Your task to perform on an android device: open app "Yahoo Mail" (install if not already installed) and go to login screen Image 0: 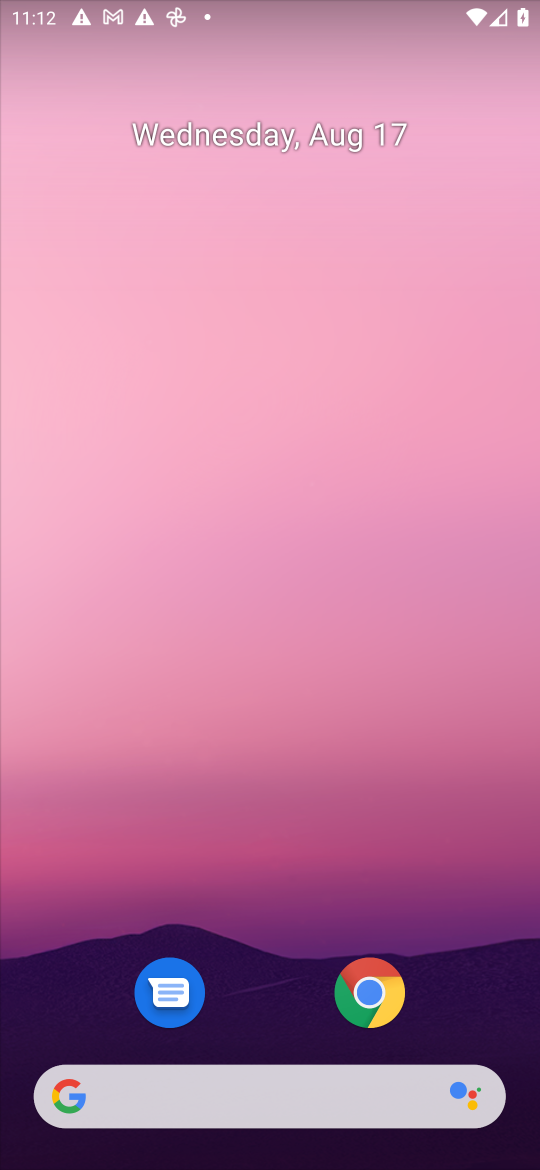
Step 0: drag from (481, 995) to (204, 15)
Your task to perform on an android device: open app "Yahoo Mail" (install if not already installed) and go to login screen Image 1: 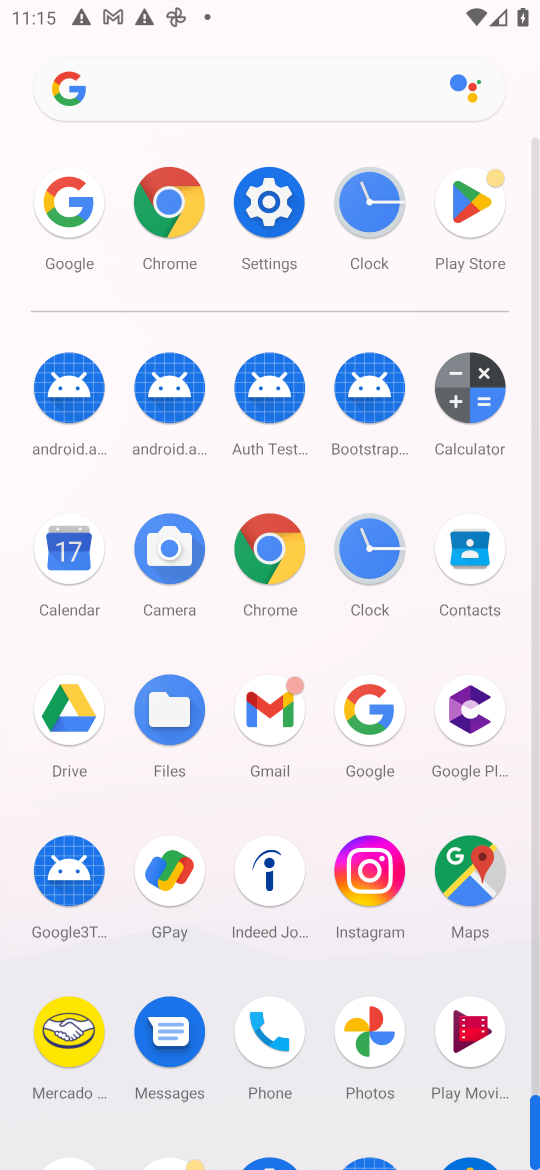
Step 1: click (469, 224)
Your task to perform on an android device: open app "Yahoo Mail" (install if not already installed) and go to login screen Image 2: 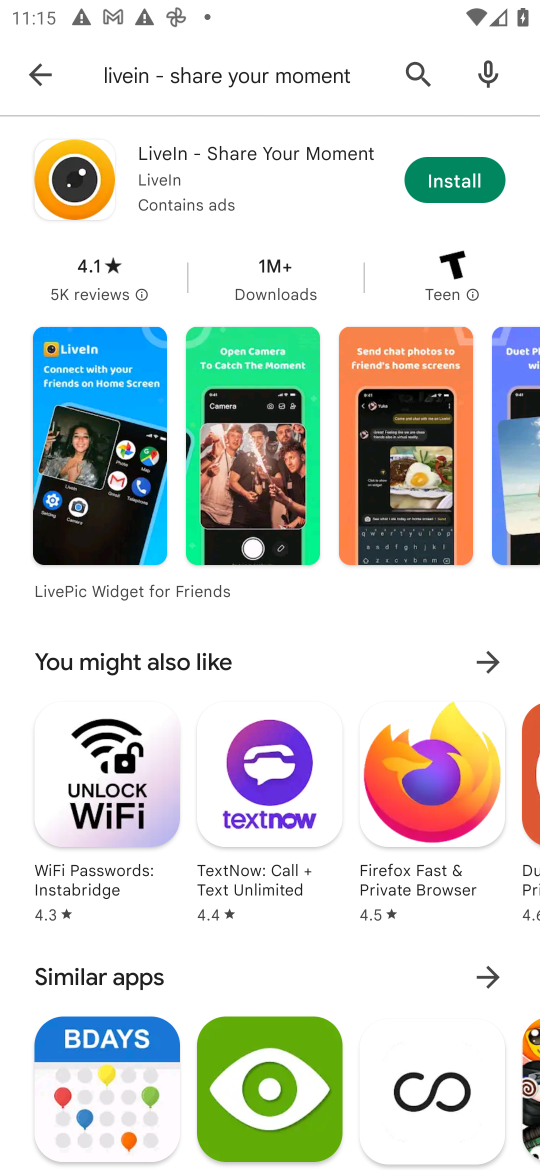
Step 2: press back button
Your task to perform on an android device: open app "Yahoo Mail" (install if not already installed) and go to login screen Image 3: 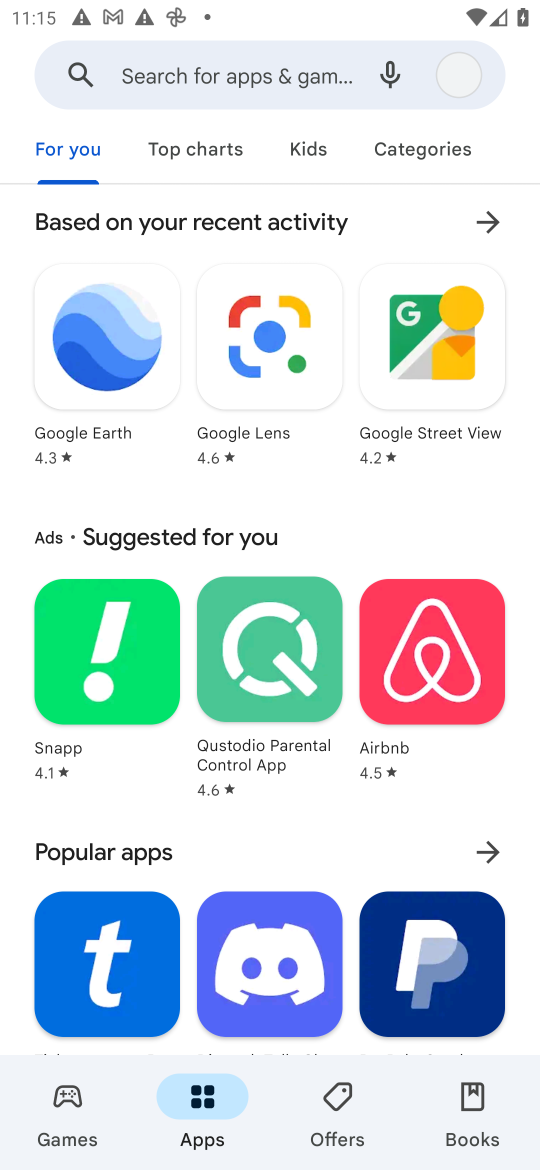
Step 3: click (164, 77)
Your task to perform on an android device: open app "Yahoo Mail" (install if not already installed) and go to login screen Image 4: 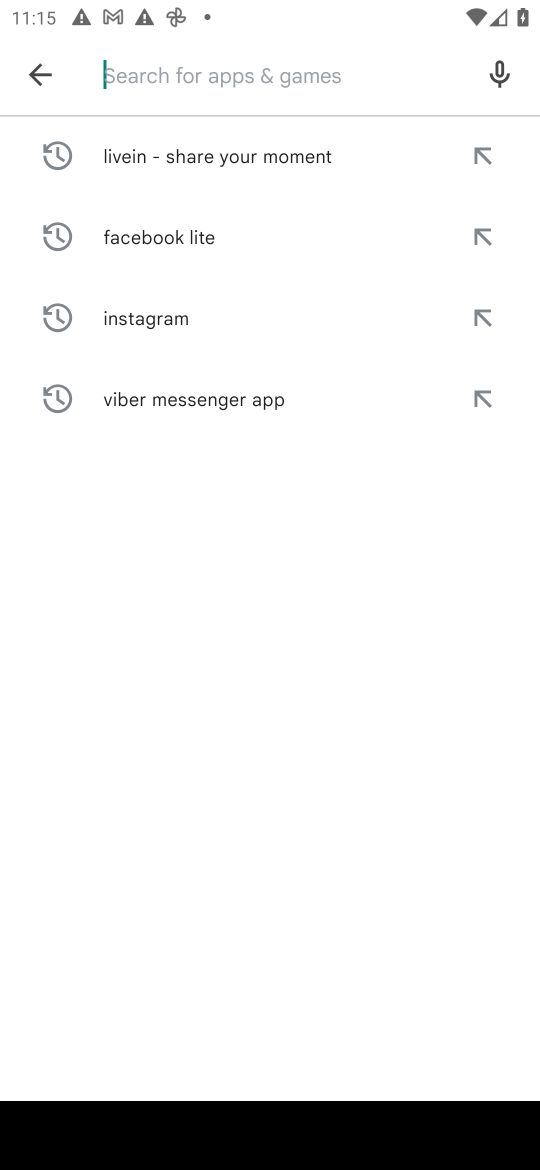
Step 4: type "Yahoo Mail"
Your task to perform on an android device: open app "Yahoo Mail" (install if not already installed) and go to login screen Image 5: 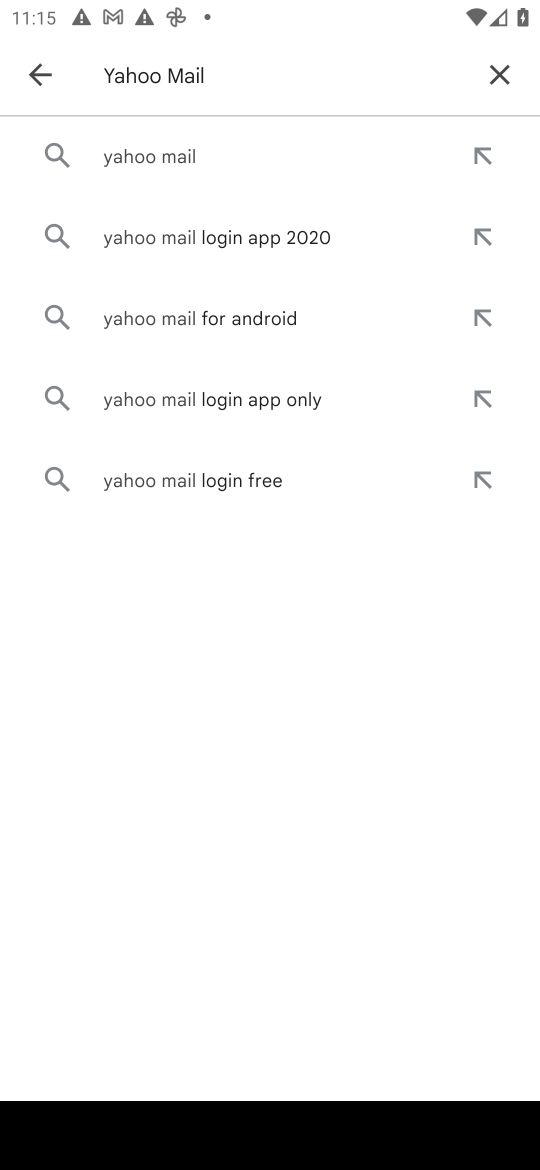
Step 5: click (175, 170)
Your task to perform on an android device: open app "Yahoo Mail" (install if not already installed) and go to login screen Image 6: 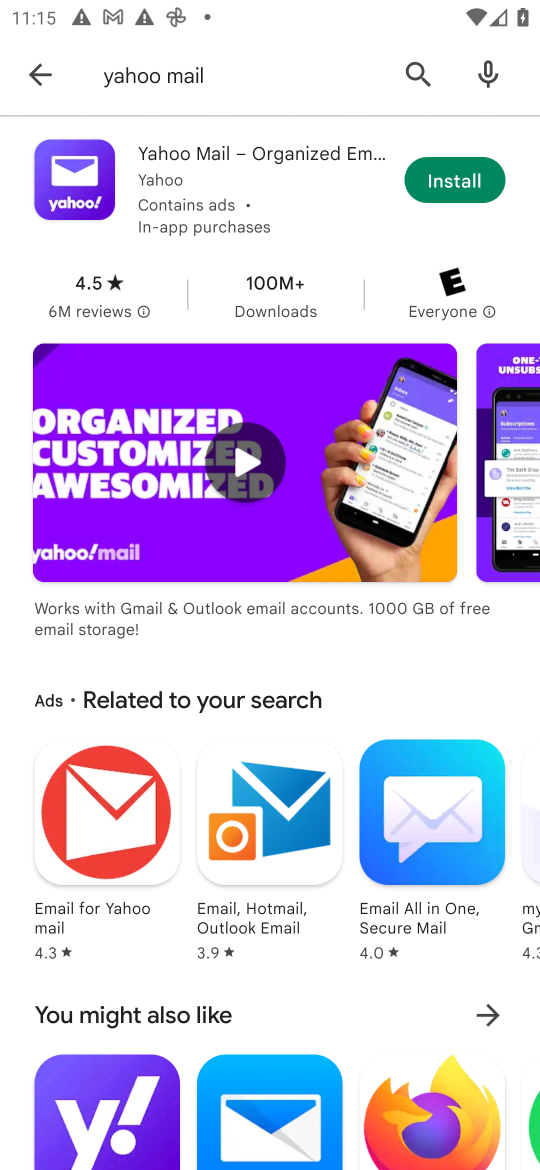
Step 6: task complete